Your task to perform on an android device: turn on showing notifications on the lock screen Image 0: 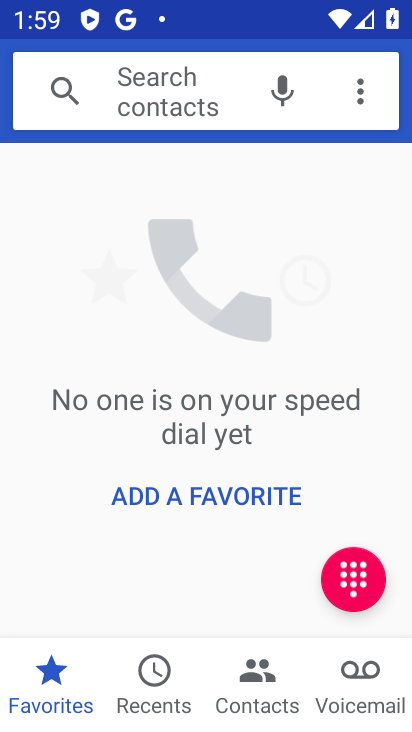
Step 0: press home button
Your task to perform on an android device: turn on showing notifications on the lock screen Image 1: 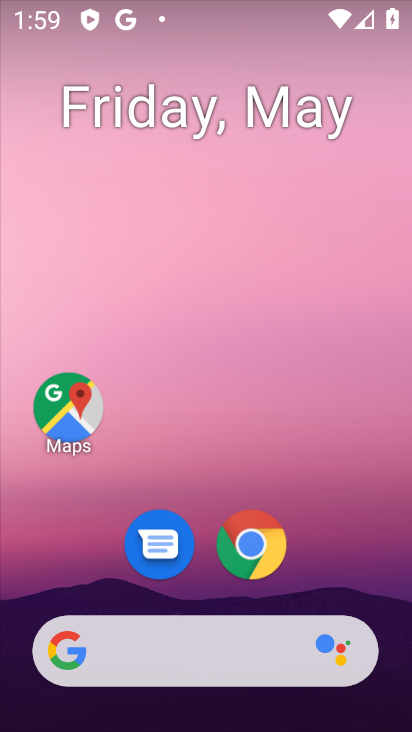
Step 1: drag from (199, 593) to (209, 220)
Your task to perform on an android device: turn on showing notifications on the lock screen Image 2: 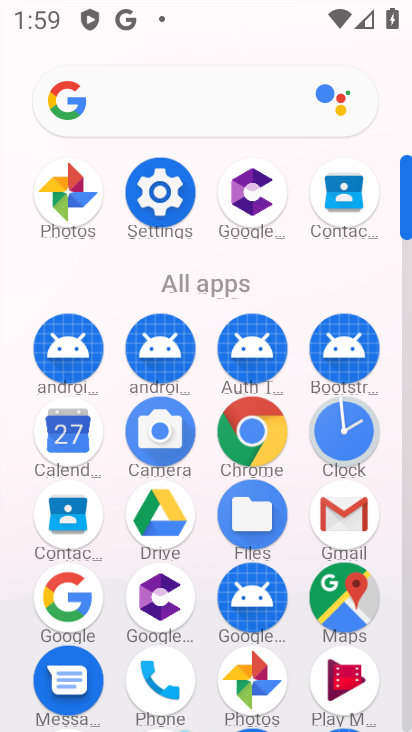
Step 2: click (177, 186)
Your task to perform on an android device: turn on showing notifications on the lock screen Image 3: 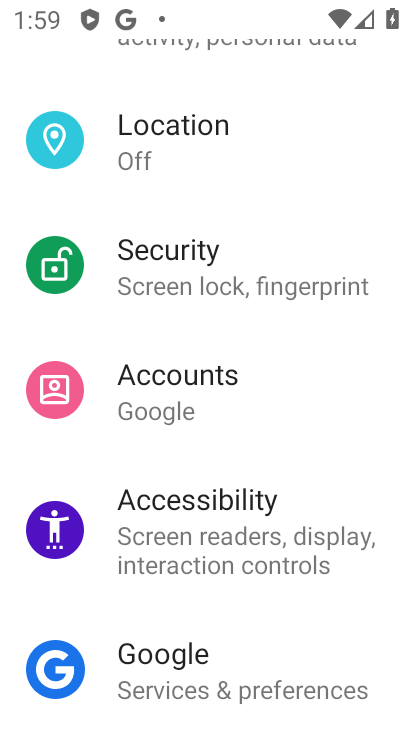
Step 3: drag from (218, 289) to (229, 505)
Your task to perform on an android device: turn on showing notifications on the lock screen Image 4: 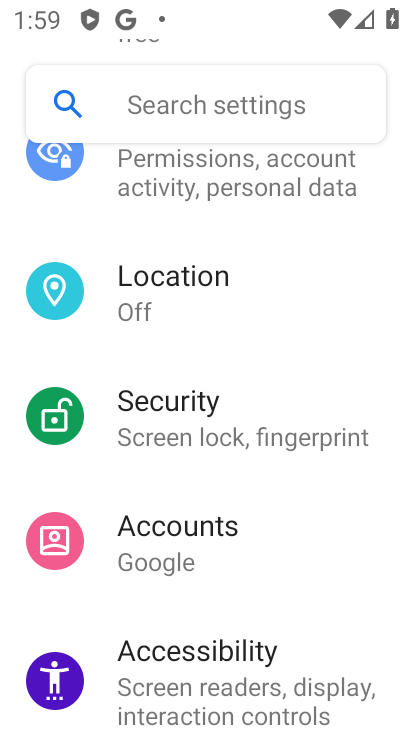
Step 4: drag from (202, 240) to (240, 483)
Your task to perform on an android device: turn on showing notifications on the lock screen Image 5: 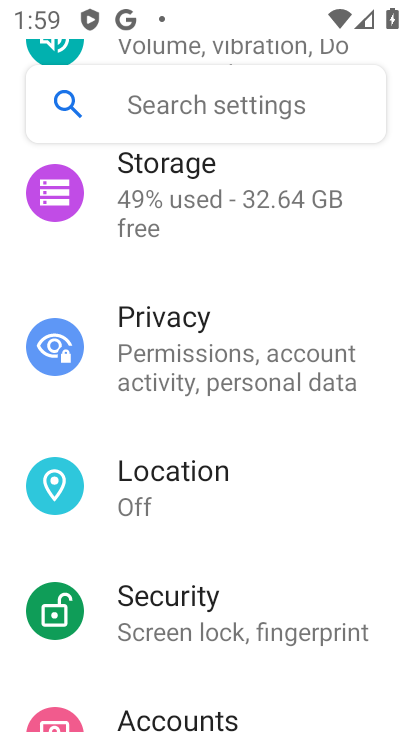
Step 5: drag from (263, 211) to (265, 567)
Your task to perform on an android device: turn on showing notifications on the lock screen Image 6: 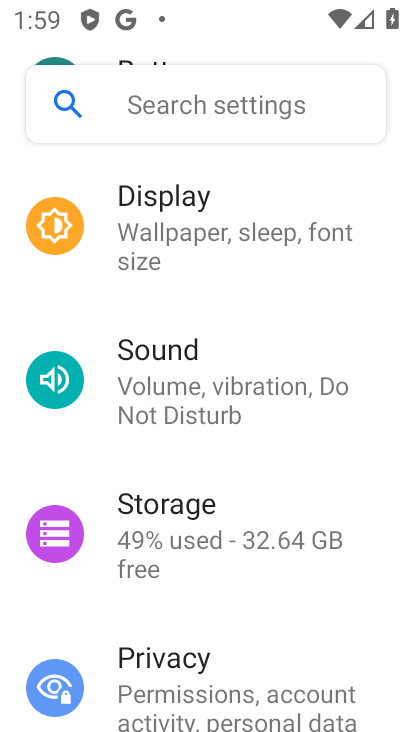
Step 6: drag from (239, 257) to (254, 564)
Your task to perform on an android device: turn on showing notifications on the lock screen Image 7: 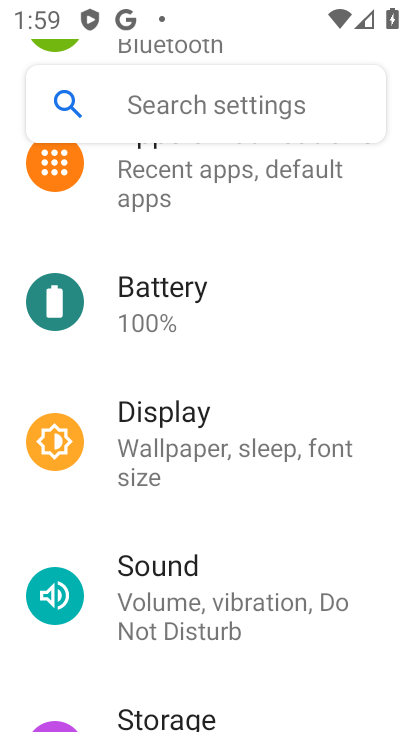
Step 7: drag from (226, 298) to (242, 533)
Your task to perform on an android device: turn on showing notifications on the lock screen Image 8: 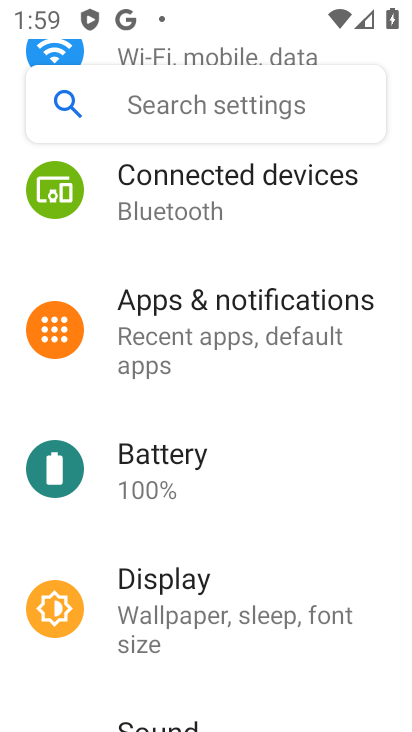
Step 8: click (240, 354)
Your task to perform on an android device: turn on showing notifications on the lock screen Image 9: 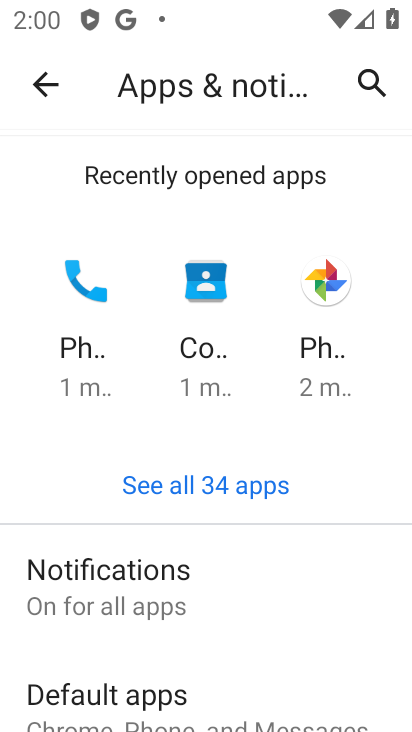
Step 9: click (151, 594)
Your task to perform on an android device: turn on showing notifications on the lock screen Image 10: 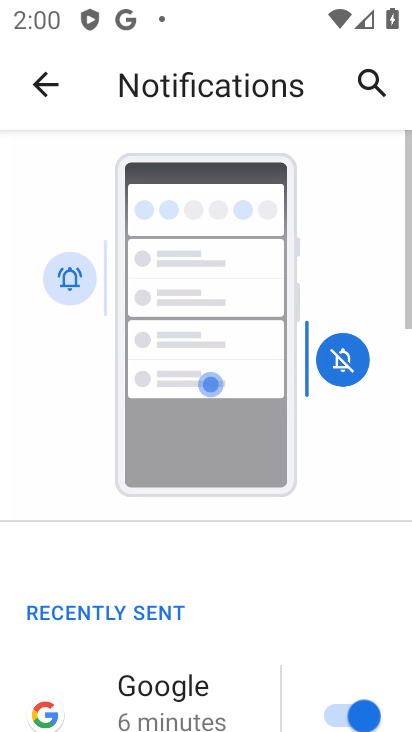
Step 10: drag from (189, 684) to (219, 364)
Your task to perform on an android device: turn on showing notifications on the lock screen Image 11: 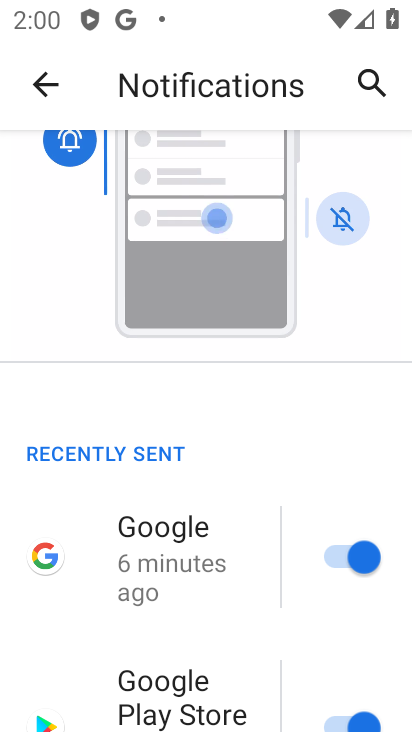
Step 11: drag from (253, 511) to (274, 320)
Your task to perform on an android device: turn on showing notifications on the lock screen Image 12: 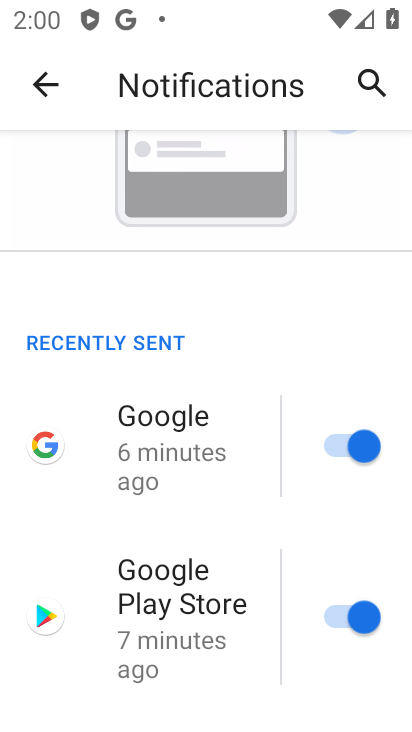
Step 12: drag from (246, 622) to (266, 299)
Your task to perform on an android device: turn on showing notifications on the lock screen Image 13: 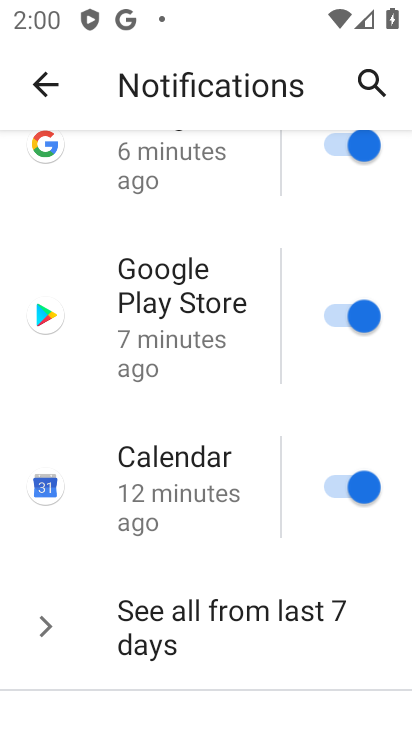
Step 13: drag from (245, 584) to (276, 295)
Your task to perform on an android device: turn on showing notifications on the lock screen Image 14: 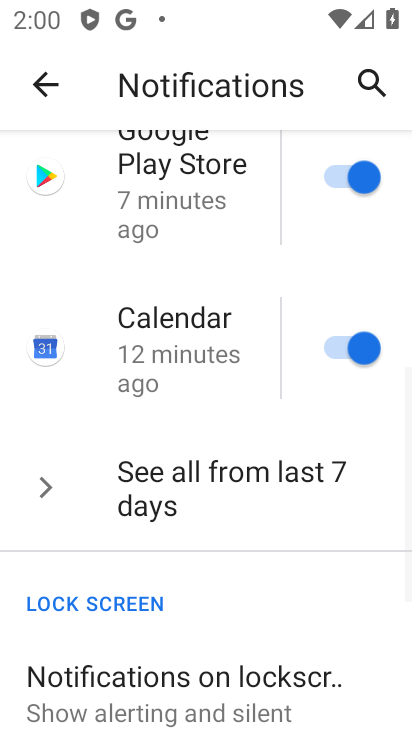
Step 14: drag from (237, 578) to (247, 351)
Your task to perform on an android device: turn on showing notifications on the lock screen Image 15: 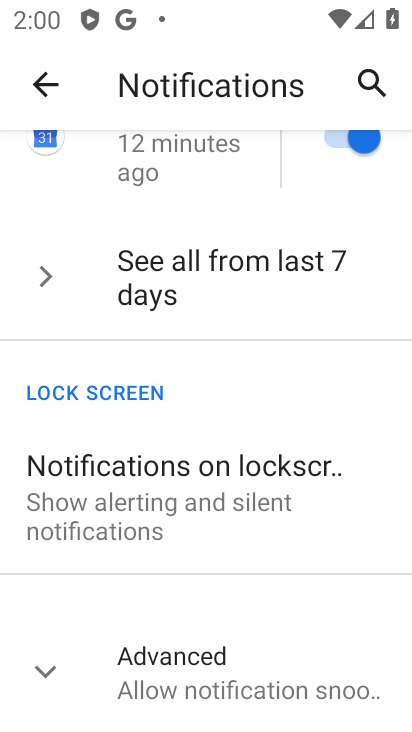
Step 15: click (241, 445)
Your task to perform on an android device: turn on showing notifications on the lock screen Image 16: 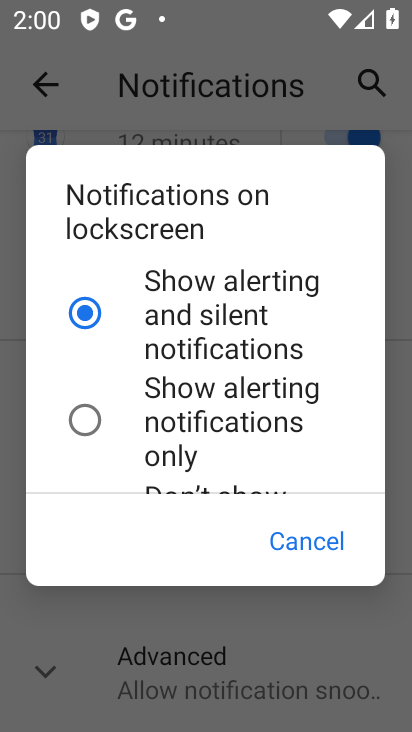
Step 16: task complete